Your task to perform on an android device: check storage Image 0: 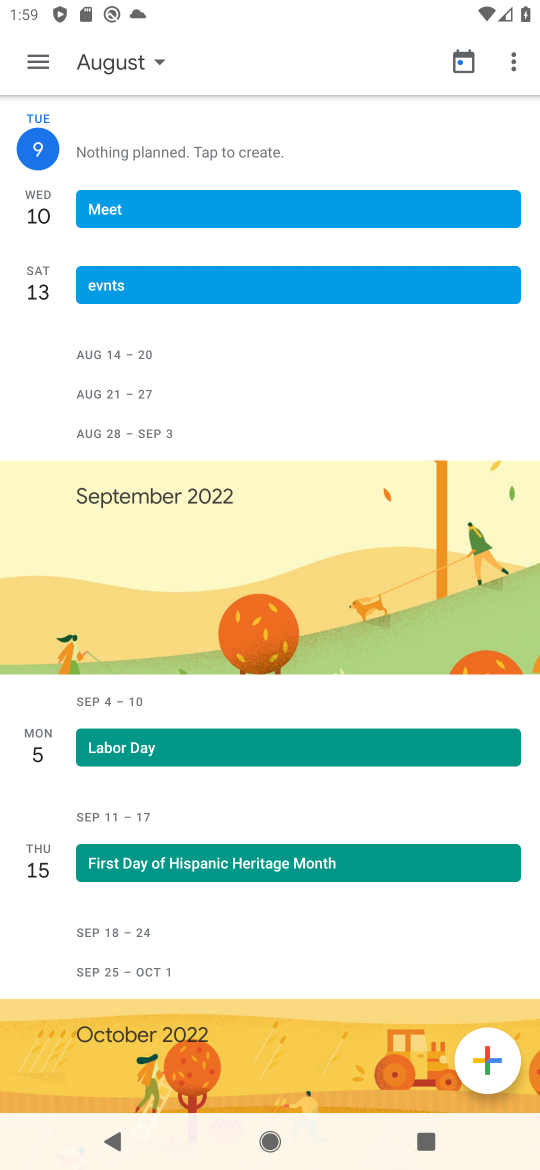
Step 0: press home button
Your task to perform on an android device: check storage Image 1: 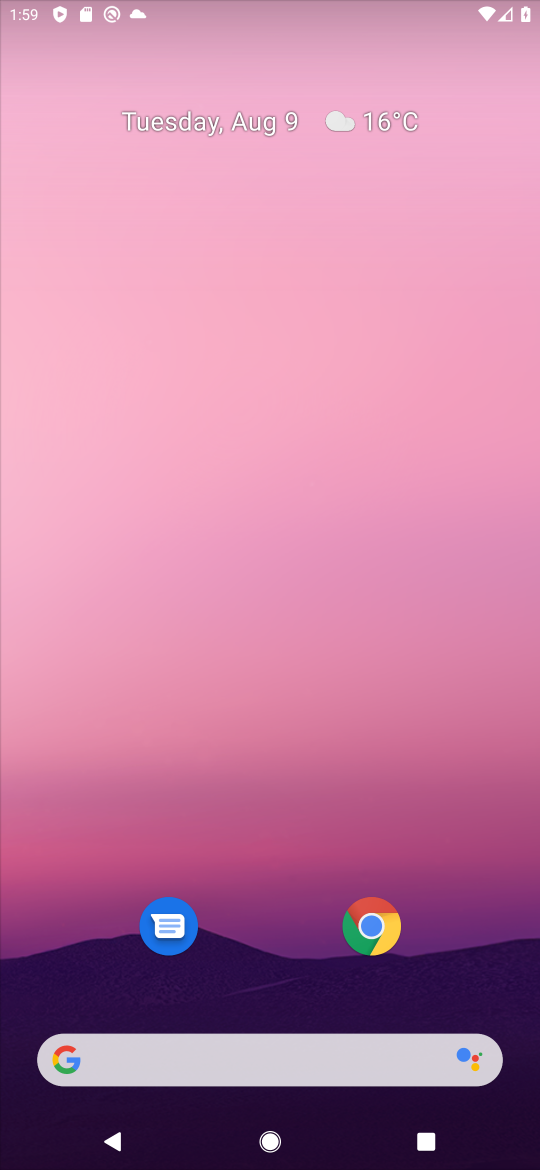
Step 1: drag from (298, 955) to (455, 227)
Your task to perform on an android device: check storage Image 2: 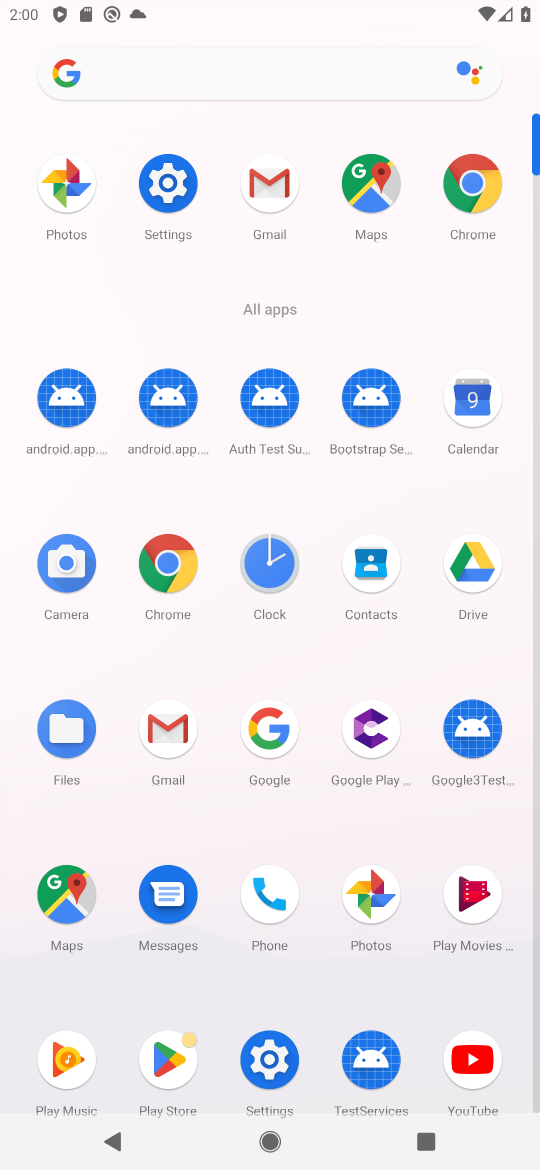
Step 2: click (270, 1054)
Your task to perform on an android device: check storage Image 3: 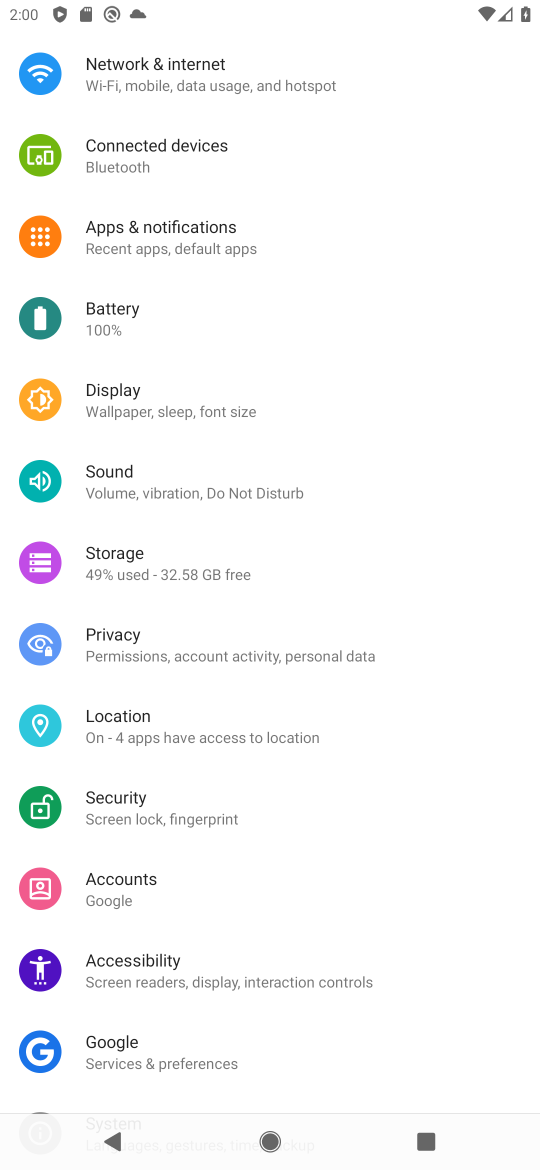
Step 3: click (104, 559)
Your task to perform on an android device: check storage Image 4: 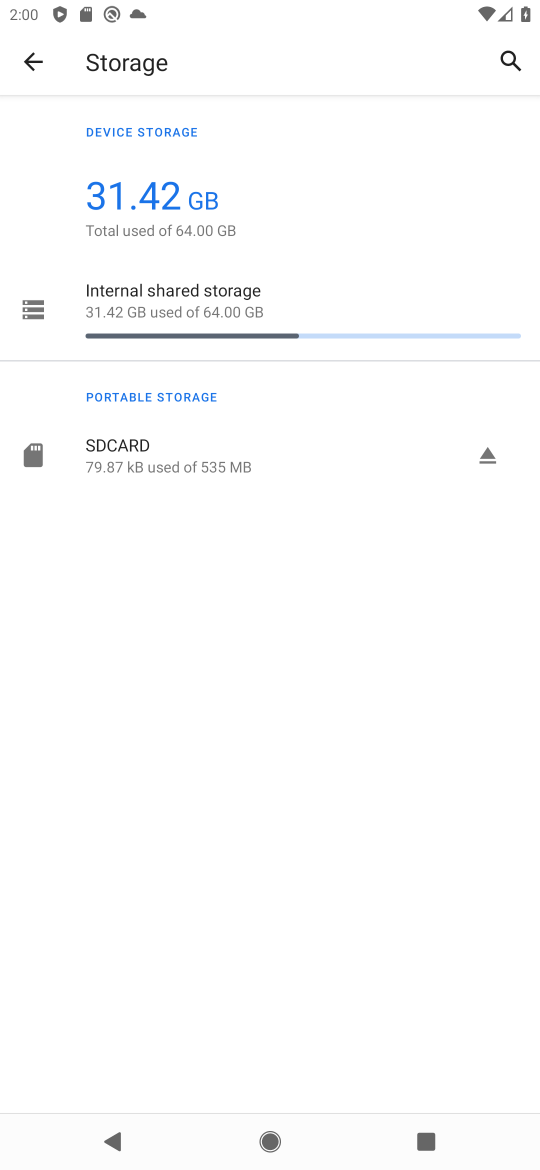
Step 4: task complete